Your task to perform on an android device: Open Youtube and go to "Your channel" Image 0: 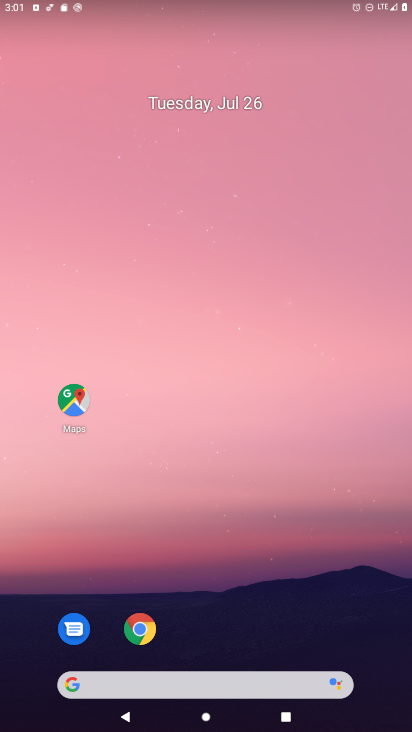
Step 0: drag from (377, 679) to (345, 275)
Your task to perform on an android device: Open Youtube and go to "Your channel" Image 1: 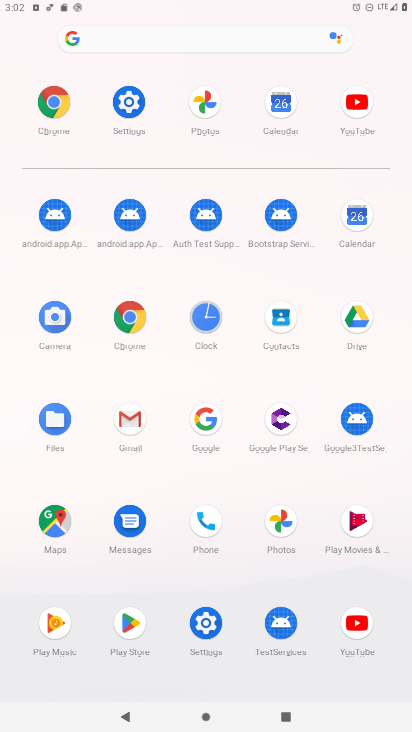
Step 1: click (360, 623)
Your task to perform on an android device: Open Youtube and go to "Your channel" Image 2: 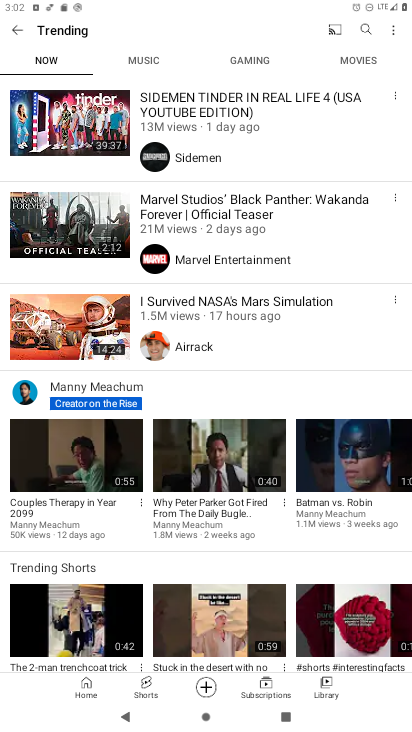
Step 2: click (83, 684)
Your task to perform on an android device: Open Youtube and go to "Your channel" Image 3: 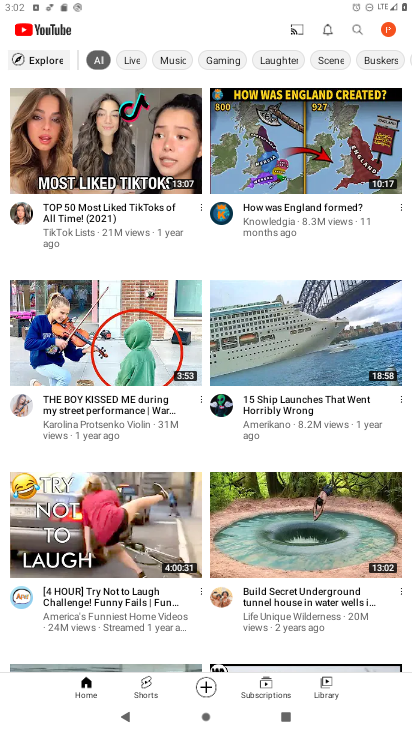
Step 3: click (390, 31)
Your task to perform on an android device: Open Youtube and go to "Your channel" Image 4: 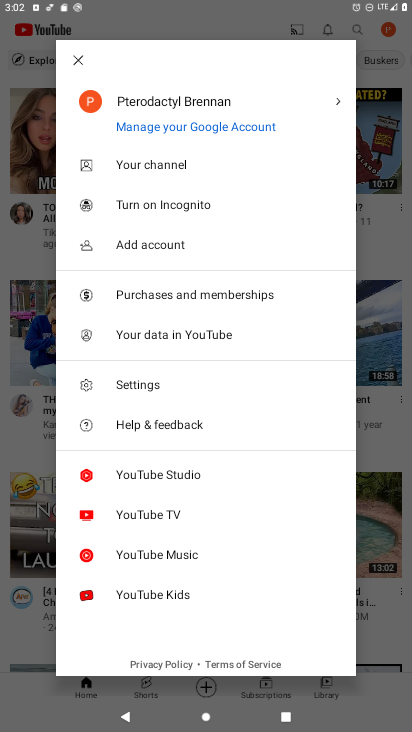
Step 4: click (155, 164)
Your task to perform on an android device: Open Youtube and go to "Your channel" Image 5: 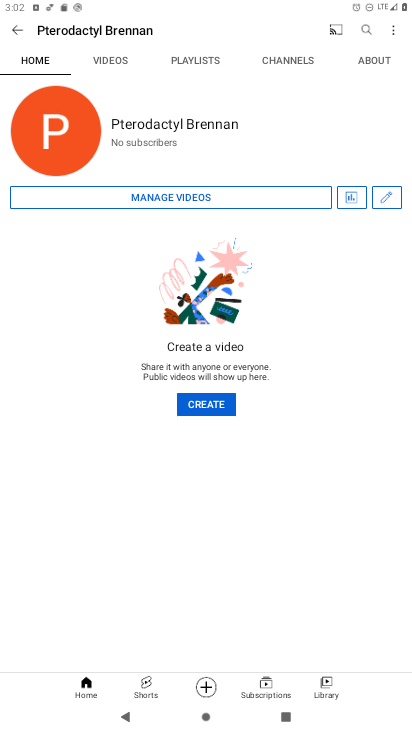
Step 5: task complete